Your task to perform on an android device: turn off improve location accuracy Image 0: 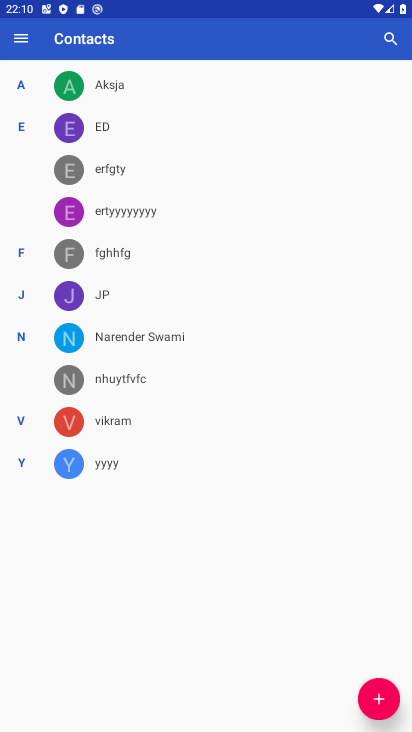
Step 0: press home button
Your task to perform on an android device: turn off improve location accuracy Image 1: 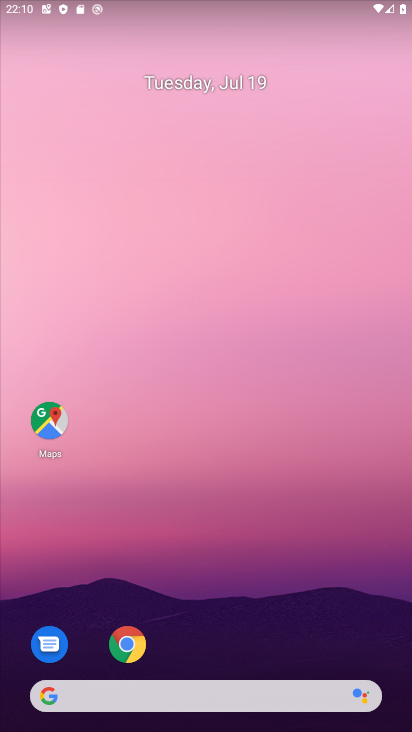
Step 1: drag from (233, 730) to (242, 332)
Your task to perform on an android device: turn off improve location accuracy Image 2: 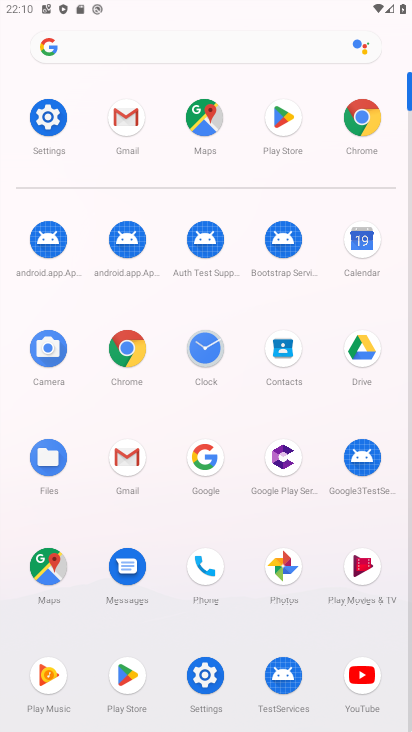
Step 2: click (49, 117)
Your task to perform on an android device: turn off improve location accuracy Image 3: 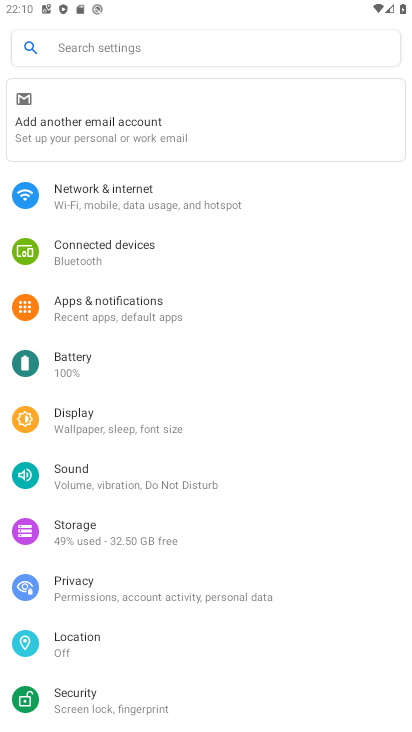
Step 3: click (78, 633)
Your task to perform on an android device: turn off improve location accuracy Image 4: 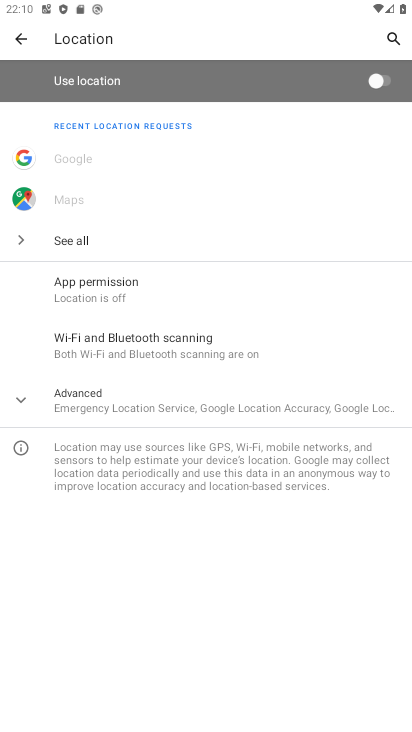
Step 4: click (70, 398)
Your task to perform on an android device: turn off improve location accuracy Image 5: 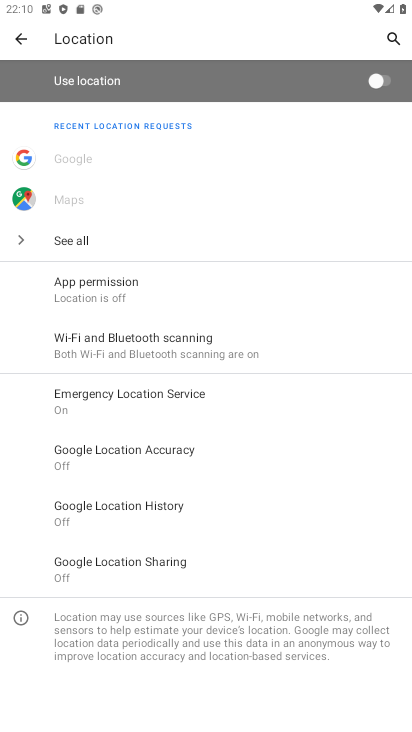
Step 5: click (153, 452)
Your task to perform on an android device: turn off improve location accuracy Image 6: 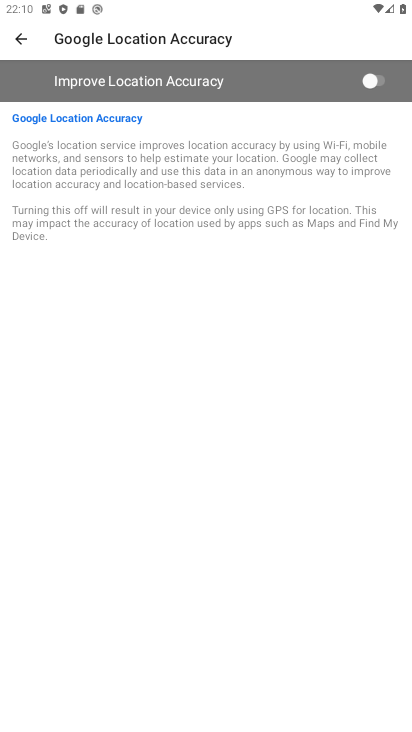
Step 6: task complete